Your task to perform on an android device: Go to location settings Image 0: 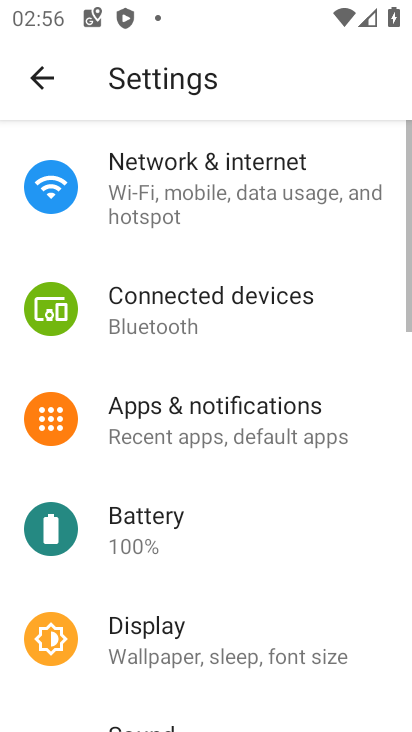
Step 0: drag from (225, 562) to (237, 64)
Your task to perform on an android device: Go to location settings Image 1: 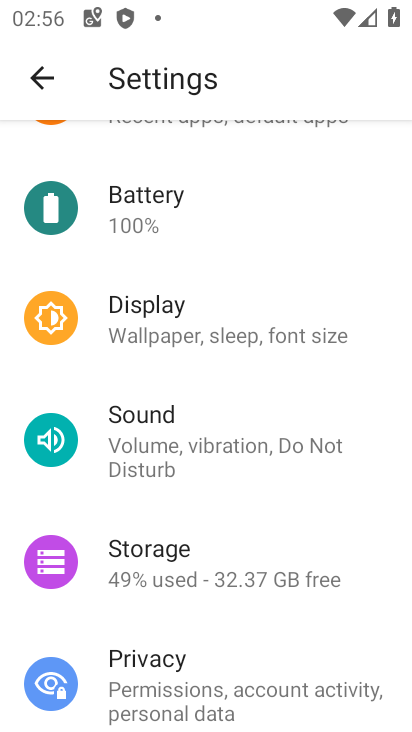
Step 1: drag from (224, 582) to (257, 170)
Your task to perform on an android device: Go to location settings Image 2: 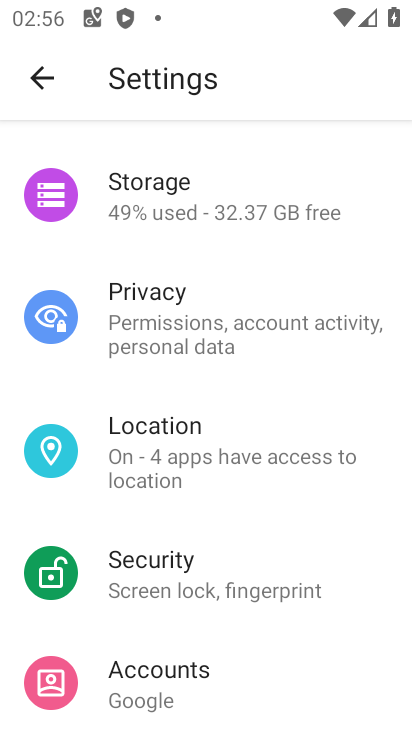
Step 2: drag from (223, 655) to (261, 327)
Your task to perform on an android device: Go to location settings Image 3: 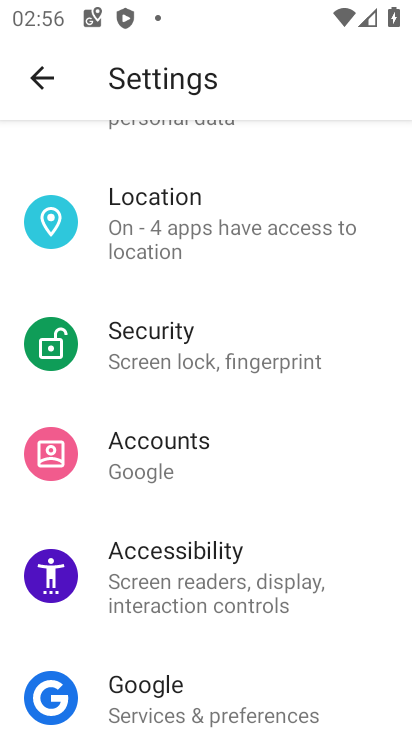
Step 3: click (303, 224)
Your task to perform on an android device: Go to location settings Image 4: 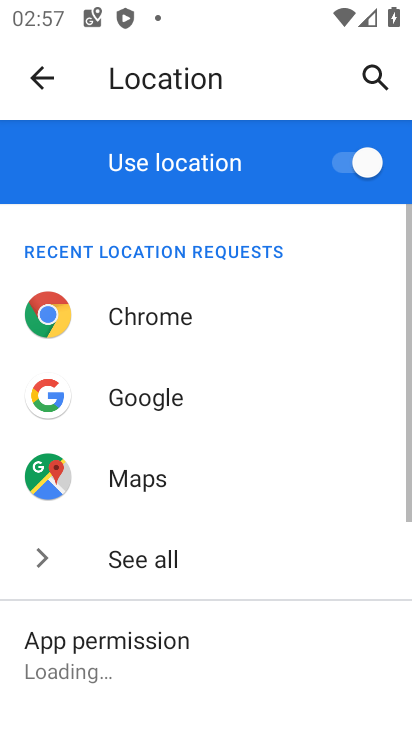
Step 4: task complete